Your task to perform on an android device: Open location settings Image 0: 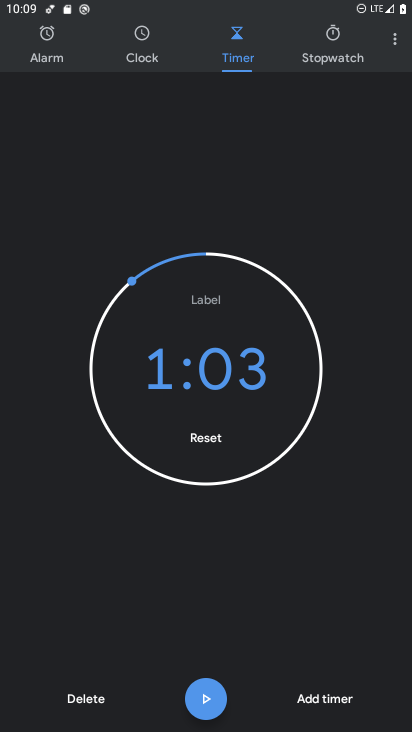
Step 0: press home button
Your task to perform on an android device: Open location settings Image 1: 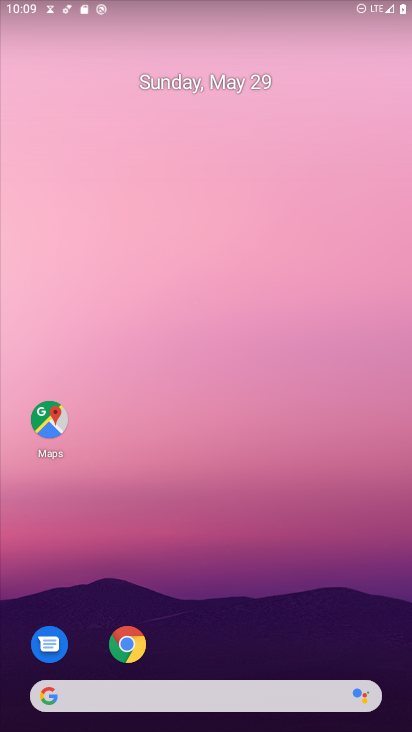
Step 1: drag from (129, 731) to (94, 128)
Your task to perform on an android device: Open location settings Image 2: 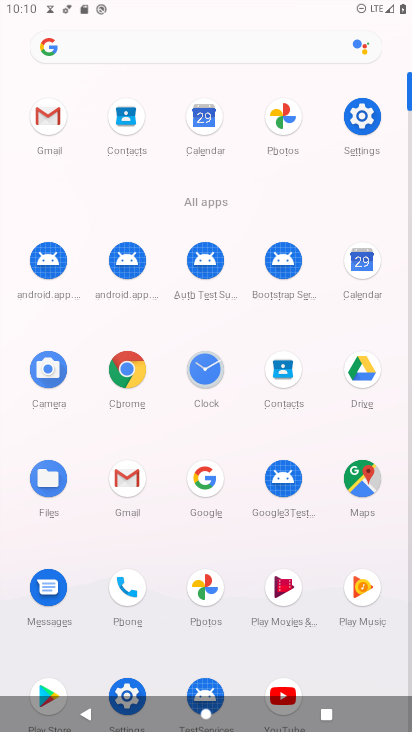
Step 2: click (357, 113)
Your task to perform on an android device: Open location settings Image 3: 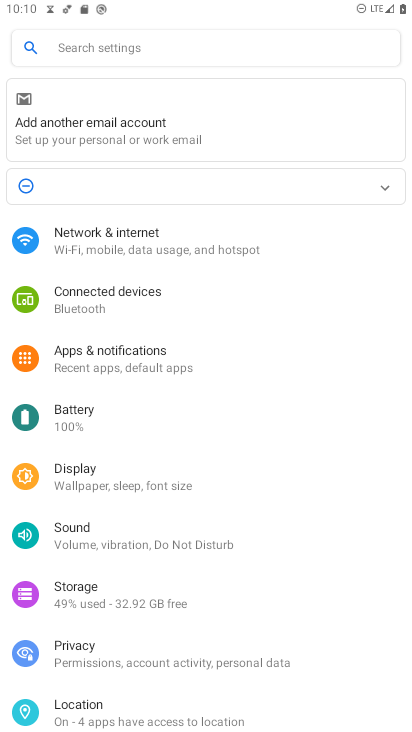
Step 3: click (197, 710)
Your task to perform on an android device: Open location settings Image 4: 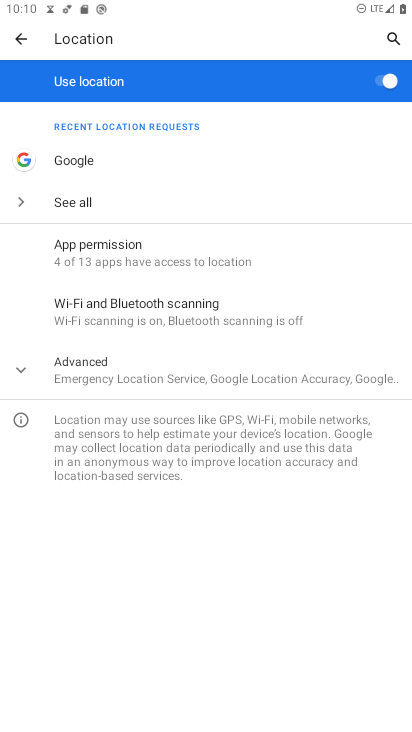
Step 4: task complete